Your task to perform on an android device: Go to calendar. Show me events next week Image 0: 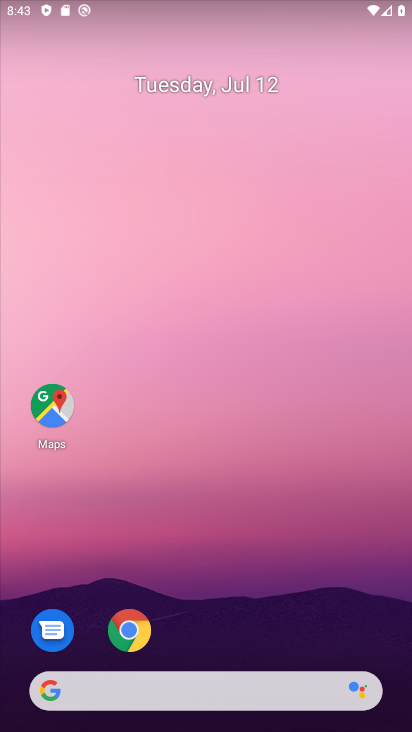
Step 0: press home button
Your task to perform on an android device: Go to calendar. Show me events next week Image 1: 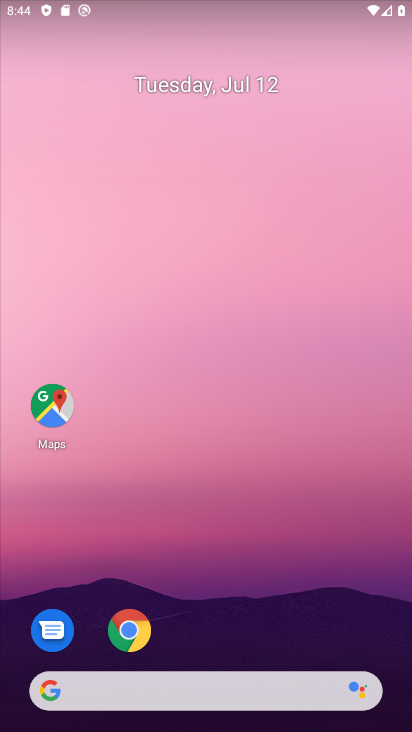
Step 1: press home button
Your task to perform on an android device: Go to calendar. Show me events next week Image 2: 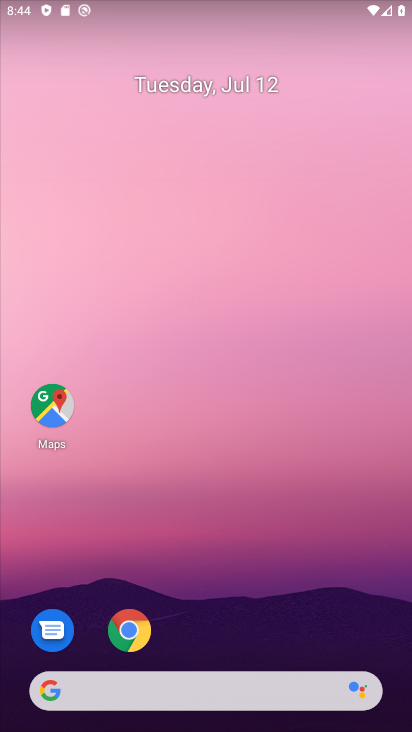
Step 2: drag from (262, 580) to (297, 35)
Your task to perform on an android device: Go to calendar. Show me events next week Image 3: 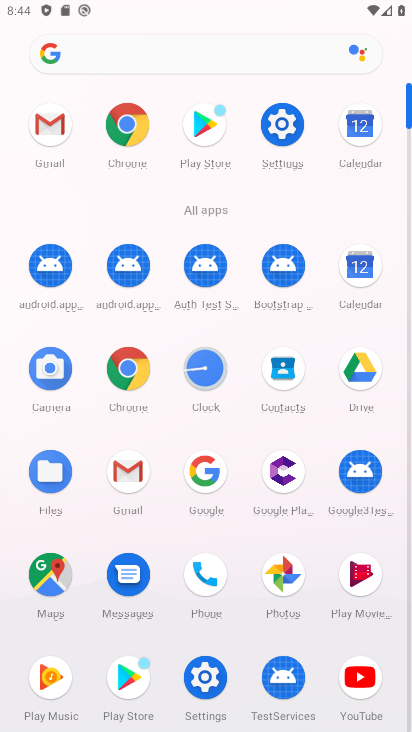
Step 3: click (368, 140)
Your task to perform on an android device: Go to calendar. Show me events next week Image 4: 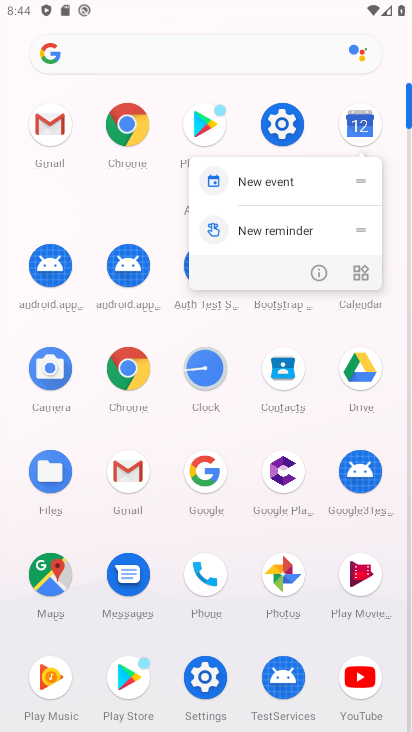
Step 4: click (77, 206)
Your task to perform on an android device: Go to calendar. Show me events next week Image 5: 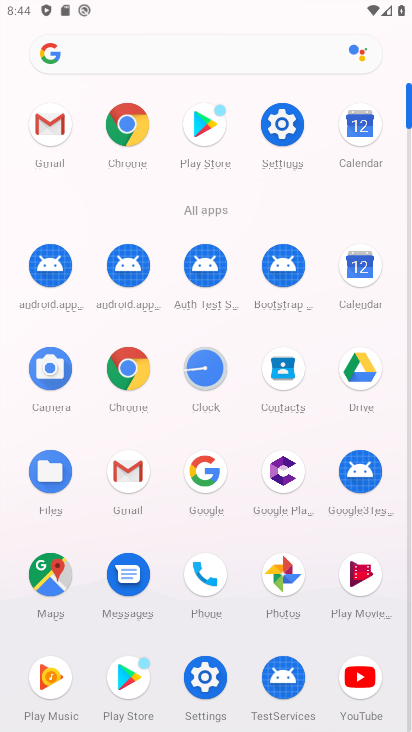
Step 5: click (351, 280)
Your task to perform on an android device: Go to calendar. Show me events next week Image 6: 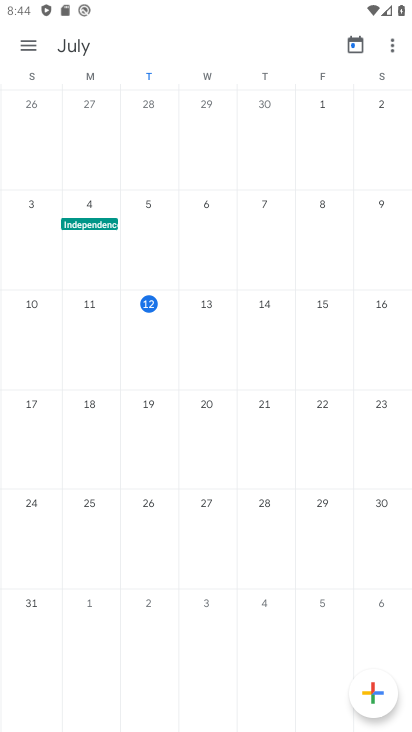
Step 6: click (17, 53)
Your task to perform on an android device: Go to calendar. Show me events next week Image 7: 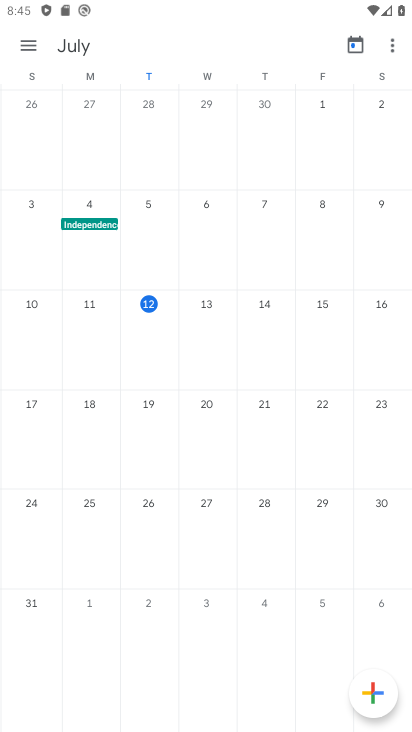
Step 7: task complete